Your task to perform on an android device: Open Chrome and go to settings Image 0: 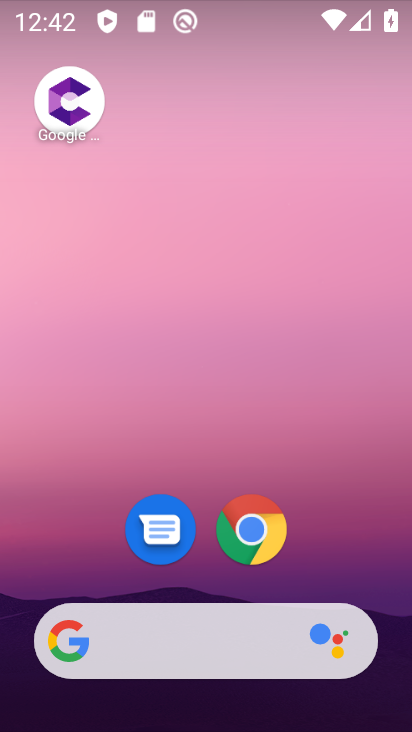
Step 0: drag from (314, 576) to (324, 119)
Your task to perform on an android device: Open Chrome and go to settings Image 1: 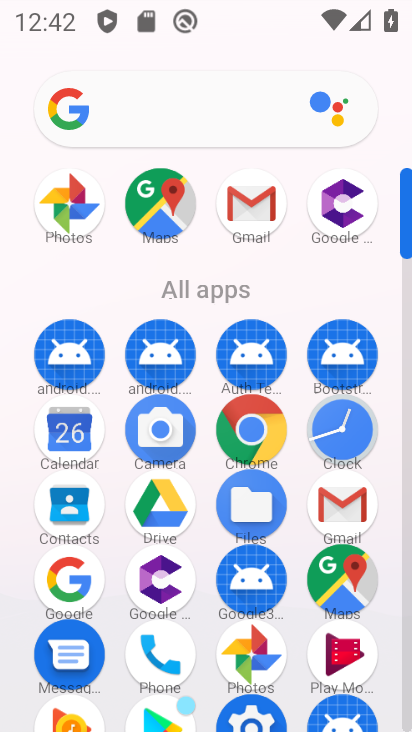
Step 1: click (273, 446)
Your task to perform on an android device: Open Chrome and go to settings Image 2: 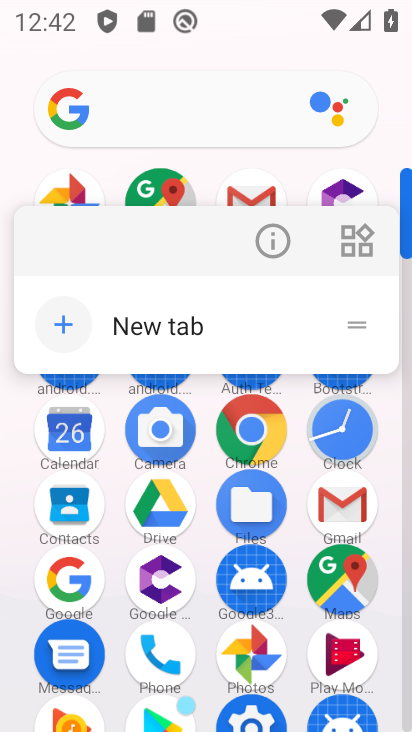
Step 2: click (274, 438)
Your task to perform on an android device: Open Chrome and go to settings Image 3: 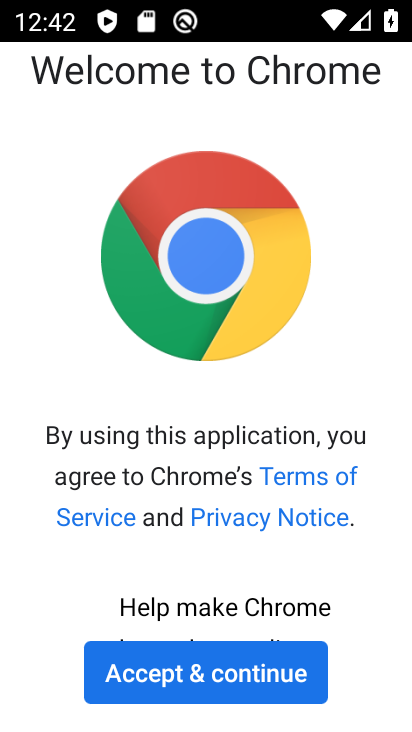
Step 3: click (226, 667)
Your task to perform on an android device: Open Chrome and go to settings Image 4: 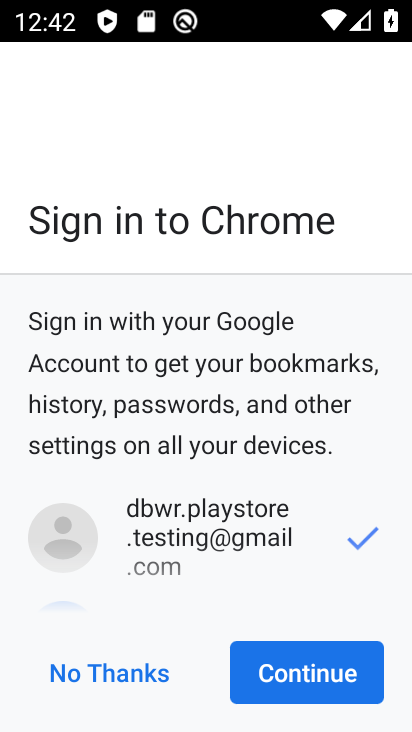
Step 4: click (300, 671)
Your task to perform on an android device: Open Chrome and go to settings Image 5: 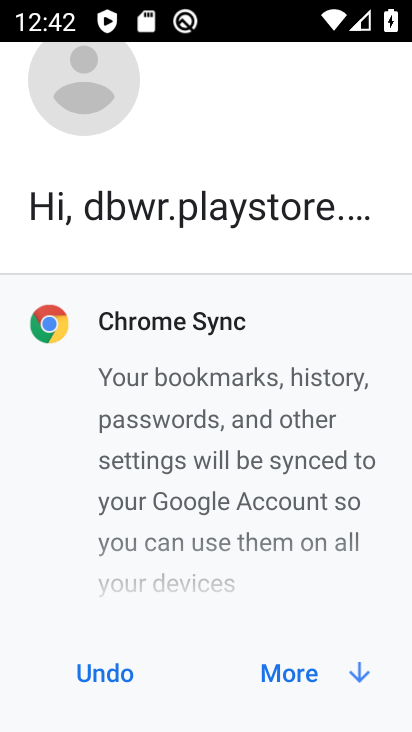
Step 5: click (298, 671)
Your task to perform on an android device: Open Chrome and go to settings Image 6: 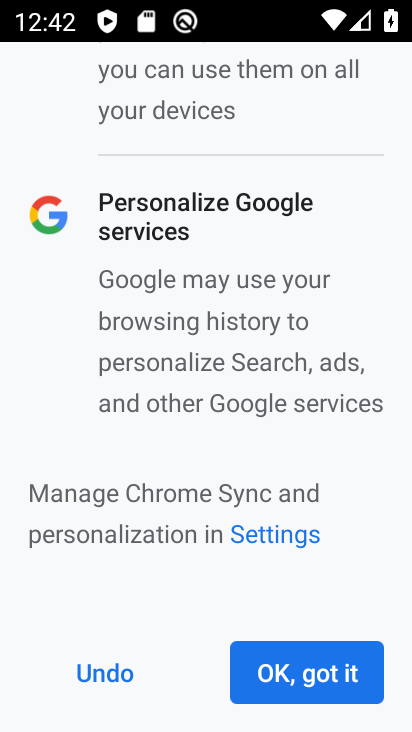
Step 6: click (298, 671)
Your task to perform on an android device: Open Chrome and go to settings Image 7: 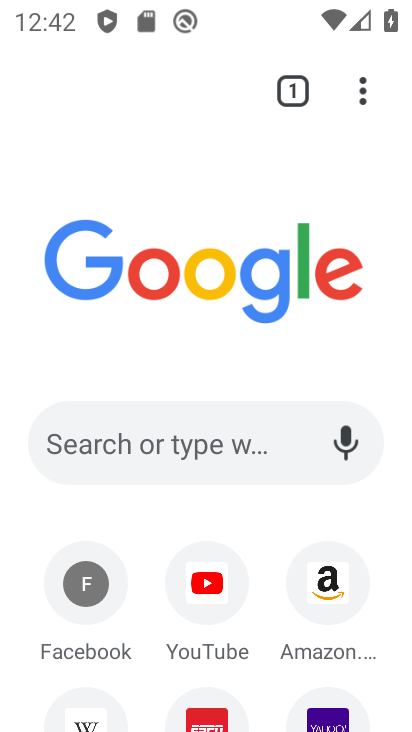
Step 7: task complete